Your task to perform on an android device: turn on the 24-hour format for clock Image 0: 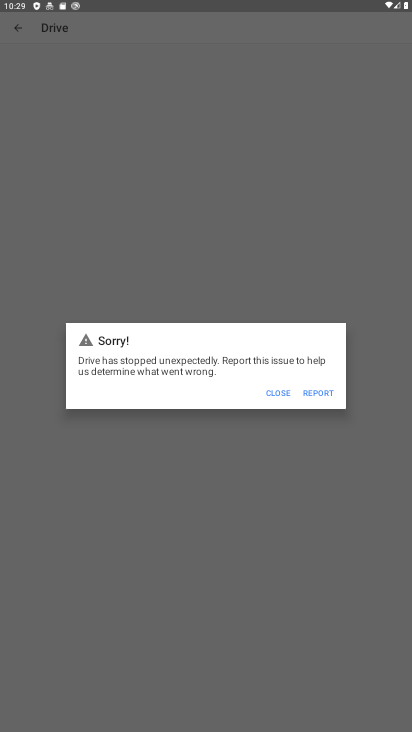
Step 0: click (279, 390)
Your task to perform on an android device: turn on the 24-hour format for clock Image 1: 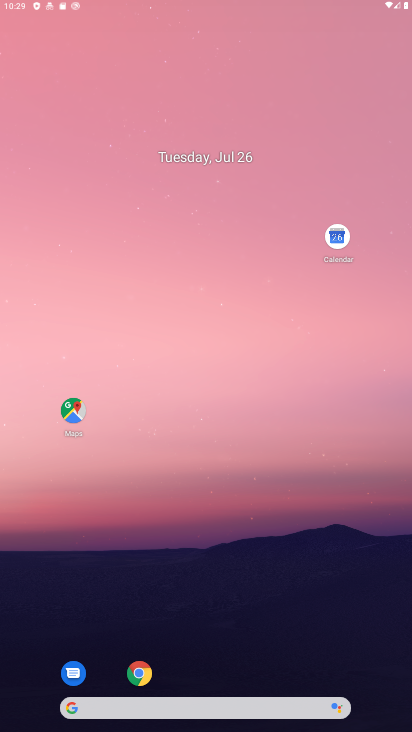
Step 1: drag from (224, 523) to (92, 22)
Your task to perform on an android device: turn on the 24-hour format for clock Image 2: 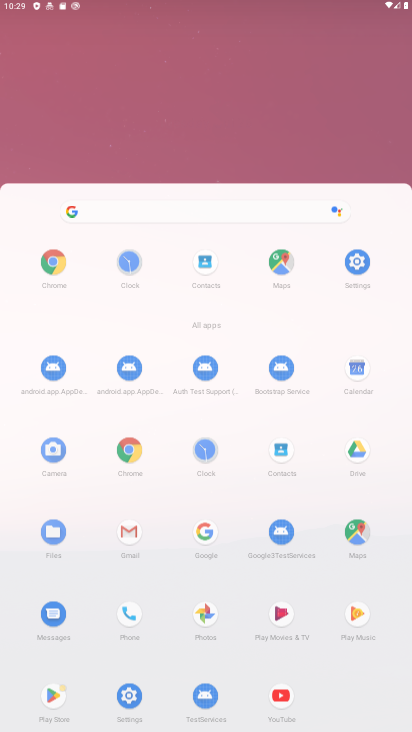
Step 2: drag from (234, 547) to (102, 11)
Your task to perform on an android device: turn on the 24-hour format for clock Image 3: 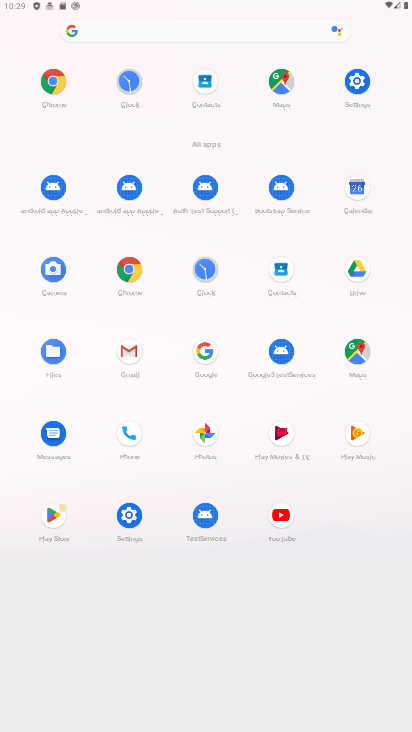
Step 3: click (208, 270)
Your task to perform on an android device: turn on the 24-hour format for clock Image 4: 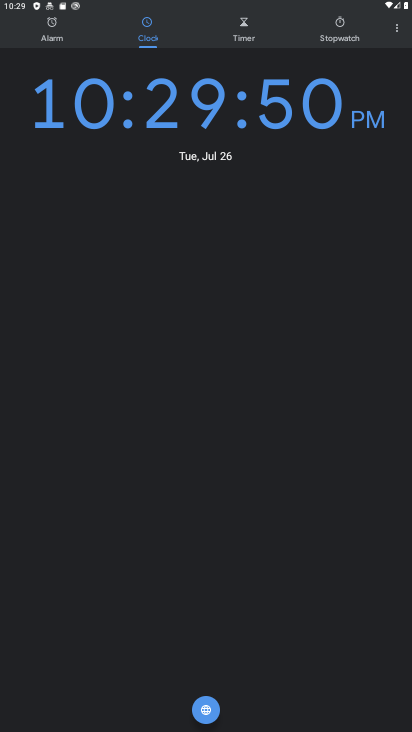
Step 4: click (202, 268)
Your task to perform on an android device: turn on the 24-hour format for clock Image 5: 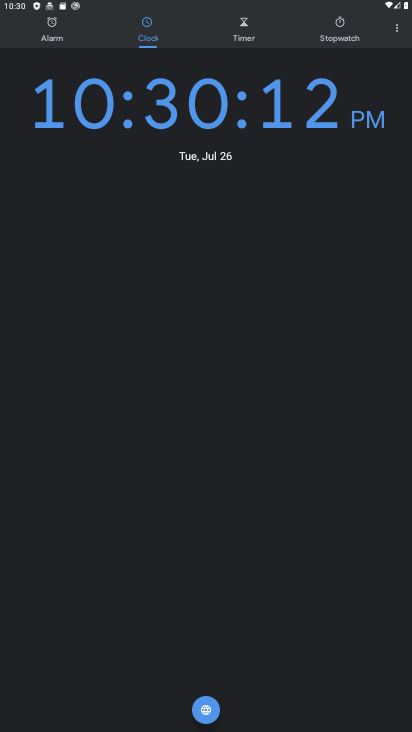
Step 5: click (394, 30)
Your task to perform on an android device: turn on the 24-hour format for clock Image 6: 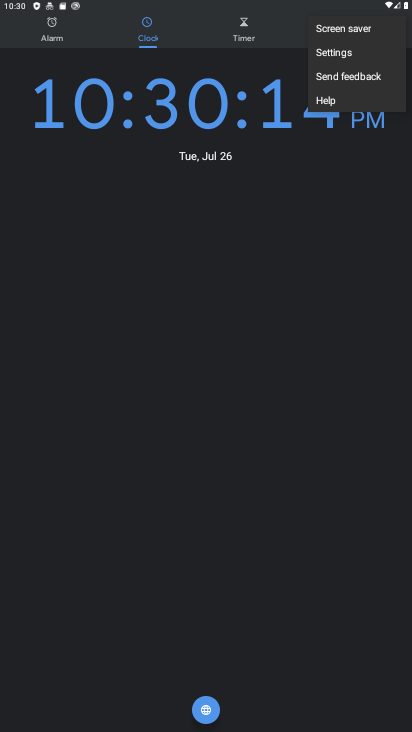
Step 6: click (328, 51)
Your task to perform on an android device: turn on the 24-hour format for clock Image 7: 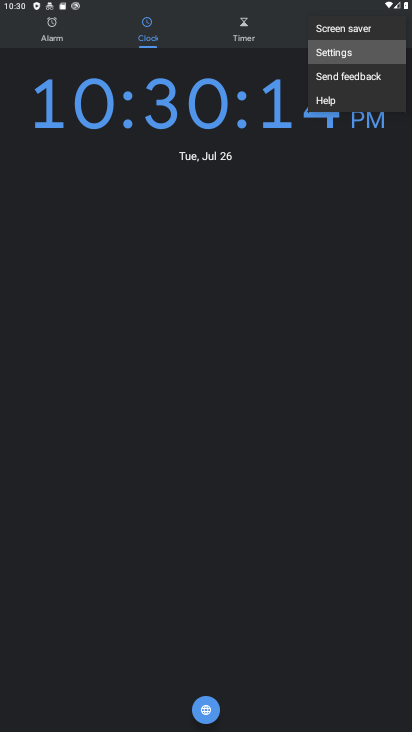
Step 7: click (329, 50)
Your task to perform on an android device: turn on the 24-hour format for clock Image 8: 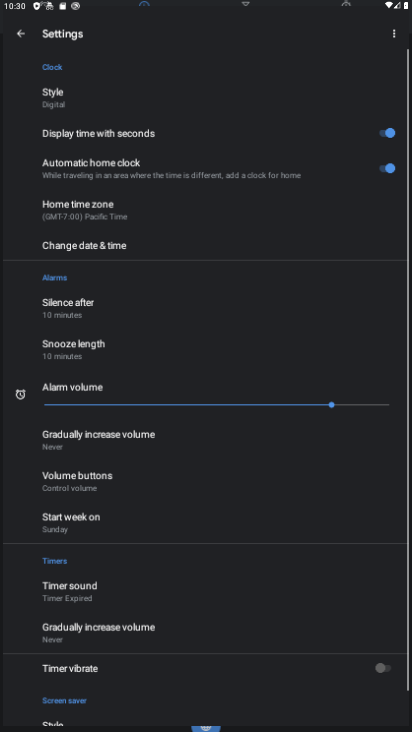
Step 8: click (330, 51)
Your task to perform on an android device: turn on the 24-hour format for clock Image 9: 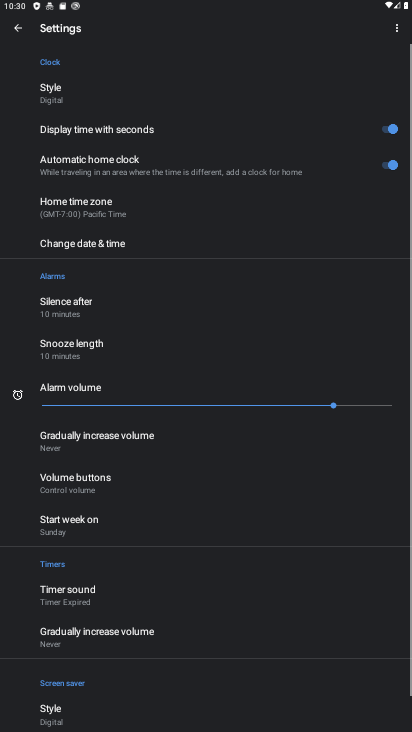
Step 9: click (336, 51)
Your task to perform on an android device: turn on the 24-hour format for clock Image 10: 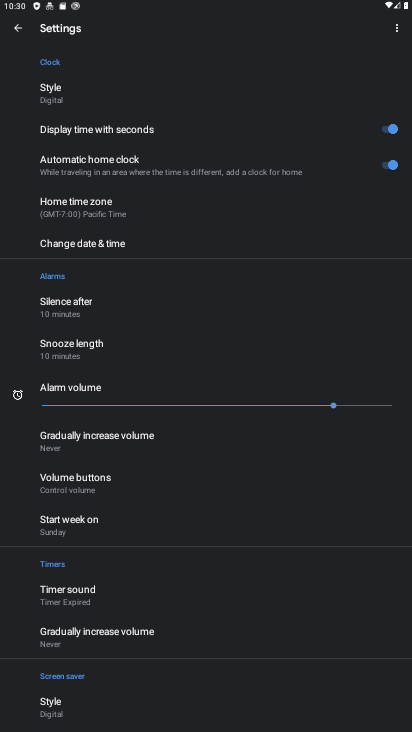
Step 10: click (65, 313)
Your task to perform on an android device: turn on the 24-hour format for clock Image 11: 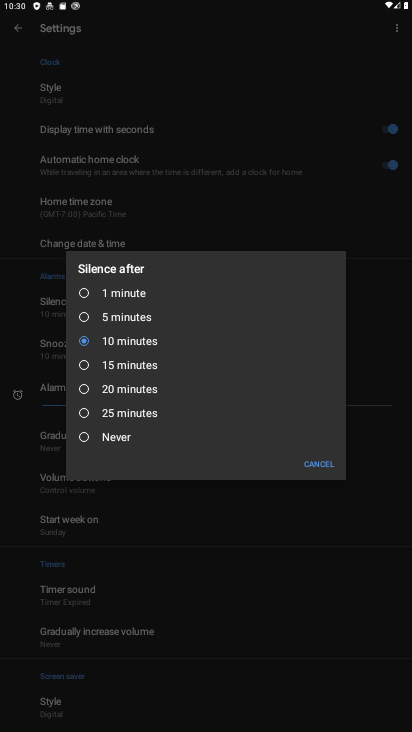
Step 11: click (226, 197)
Your task to perform on an android device: turn on the 24-hour format for clock Image 12: 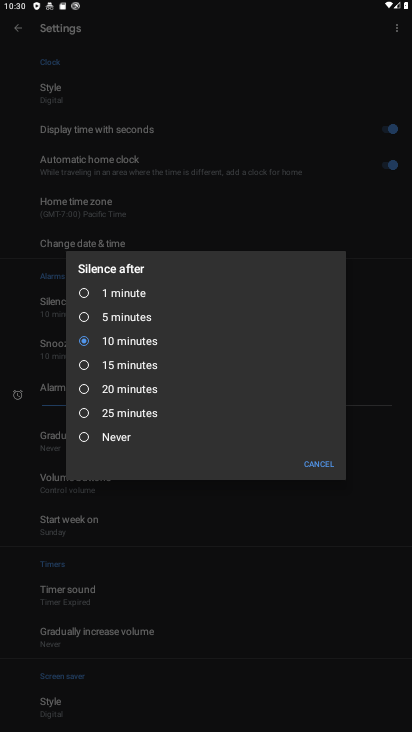
Step 12: click (226, 197)
Your task to perform on an android device: turn on the 24-hour format for clock Image 13: 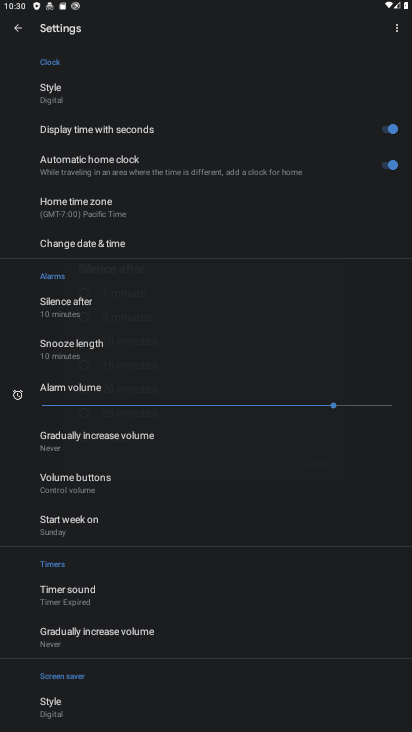
Step 13: click (230, 192)
Your task to perform on an android device: turn on the 24-hour format for clock Image 14: 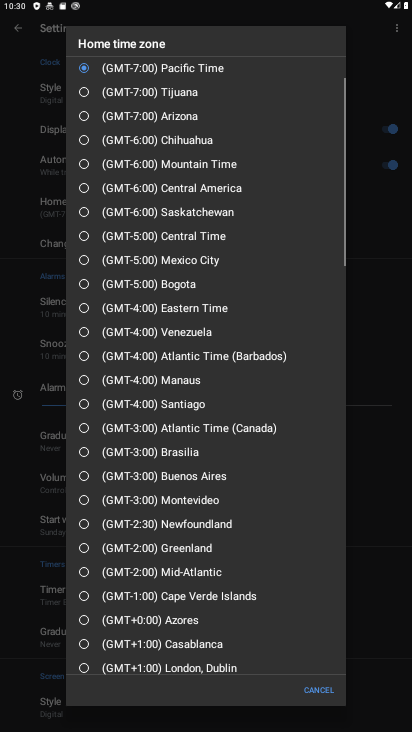
Step 14: click (378, 87)
Your task to perform on an android device: turn on the 24-hour format for clock Image 15: 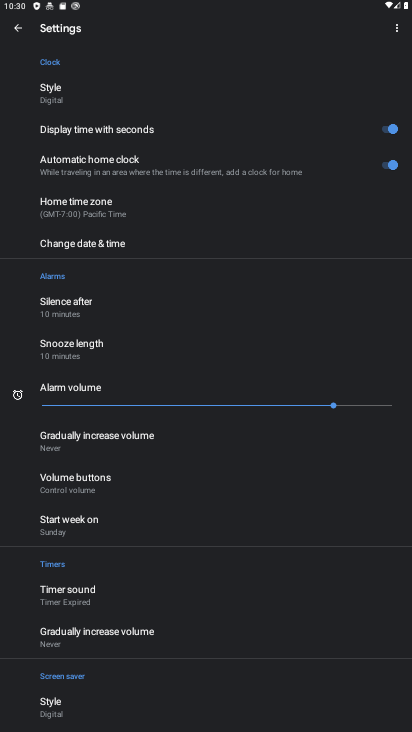
Step 15: click (80, 239)
Your task to perform on an android device: turn on the 24-hour format for clock Image 16: 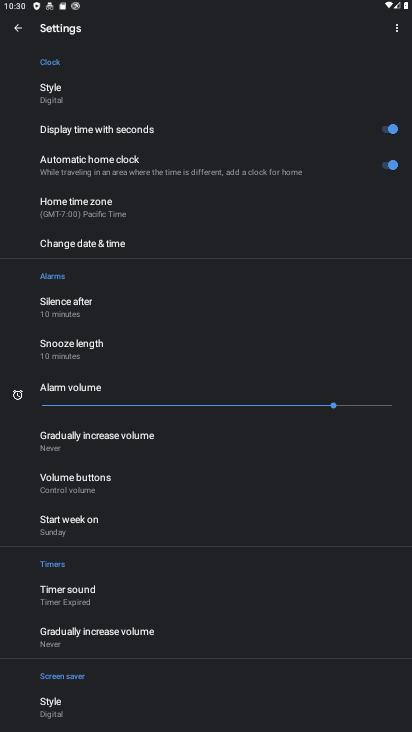
Step 16: click (79, 249)
Your task to perform on an android device: turn on the 24-hour format for clock Image 17: 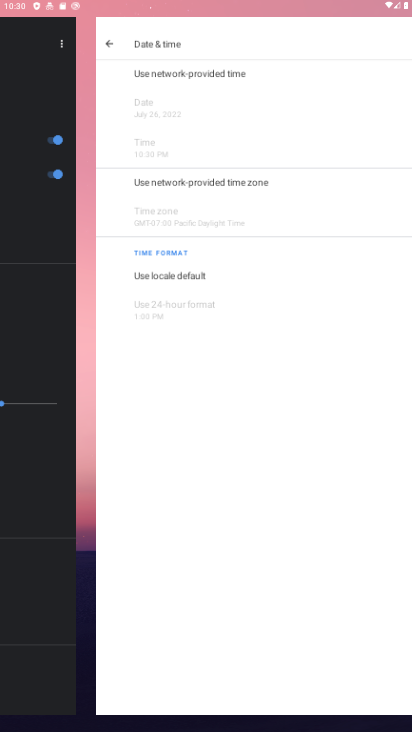
Step 17: click (88, 244)
Your task to perform on an android device: turn on the 24-hour format for clock Image 18: 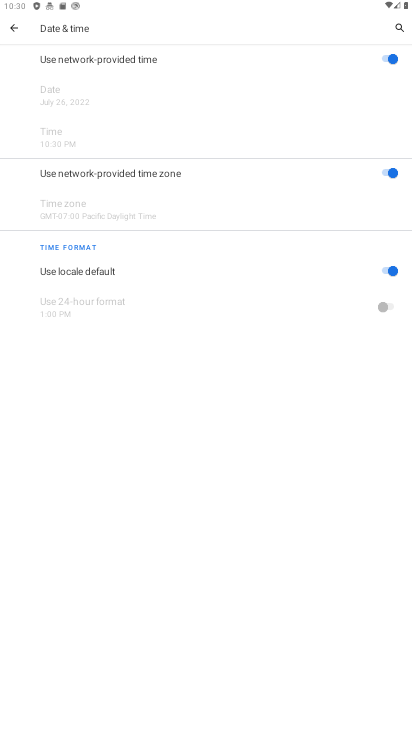
Step 18: click (383, 300)
Your task to perform on an android device: turn on the 24-hour format for clock Image 19: 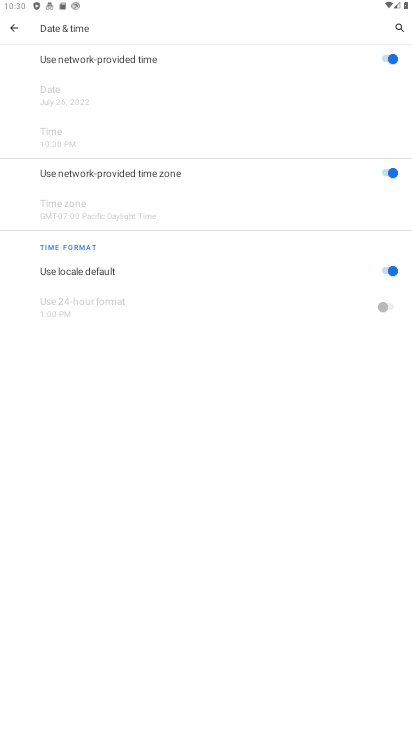
Step 19: click (385, 305)
Your task to perform on an android device: turn on the 24-hour format for clock Image 20: 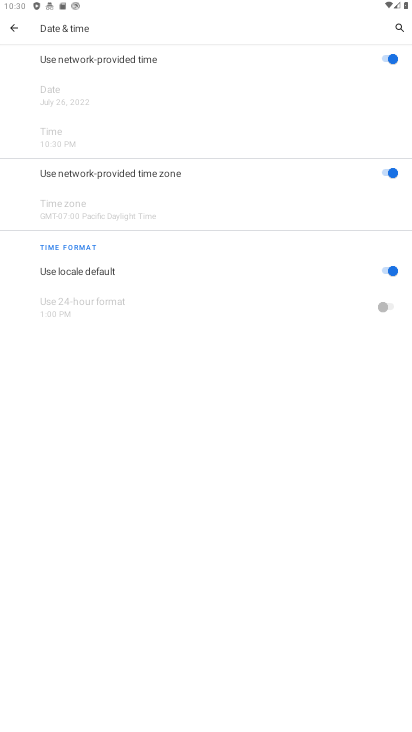
Step 20: click (384, 312)
Your task to perform on an android device: turn on the 24-hour format for clock Image 21: 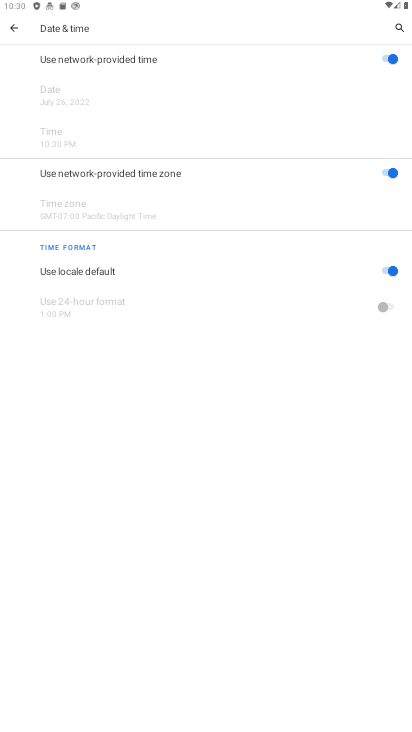
Step 21: click (393, 271)
Your task to perform on an android device: turn on the 24-hour format for clock Image 22: 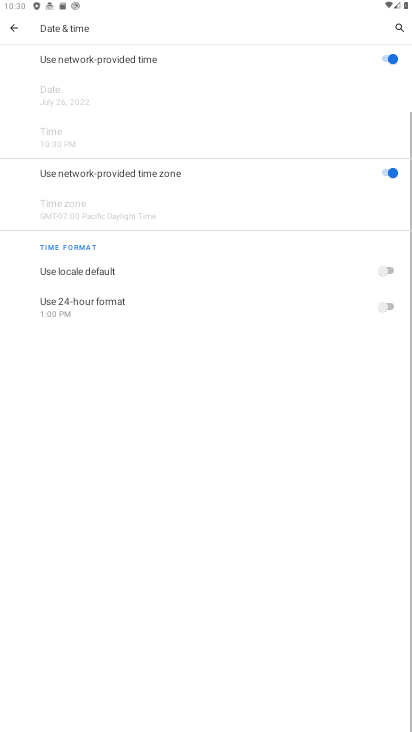
Step 22: click (383, 306)
Your task to perform on an android device: turn on the 24-hour format for clock Image 23: 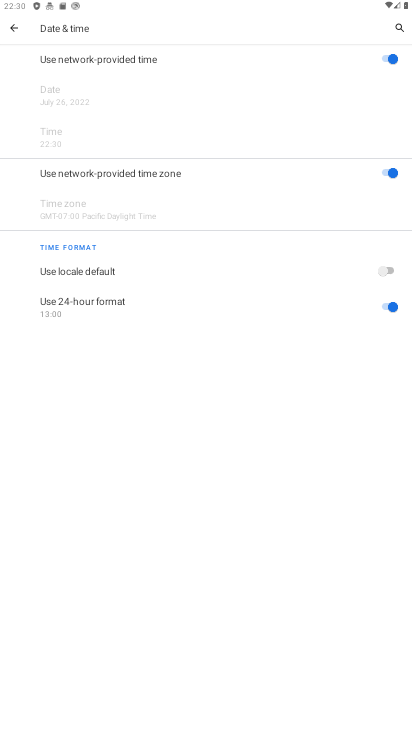
Step 23: task complete